Your task to perform on an android device: Go to accessibility settings Image 0: 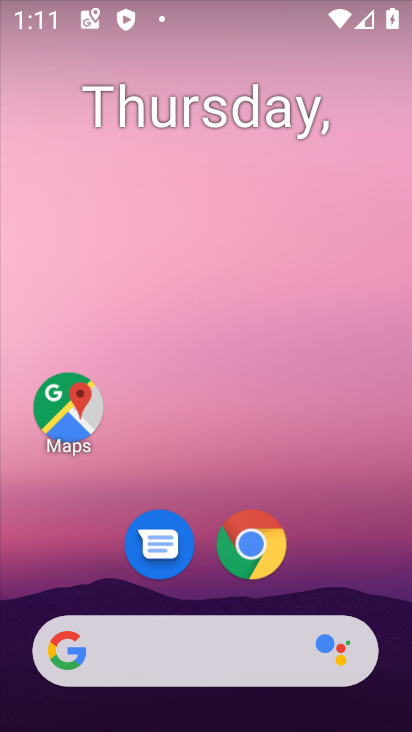
Step 0: drag from (200, 721) to (215, 164)
Your task to perform on an android device: Go to accessibility settings Image 1: 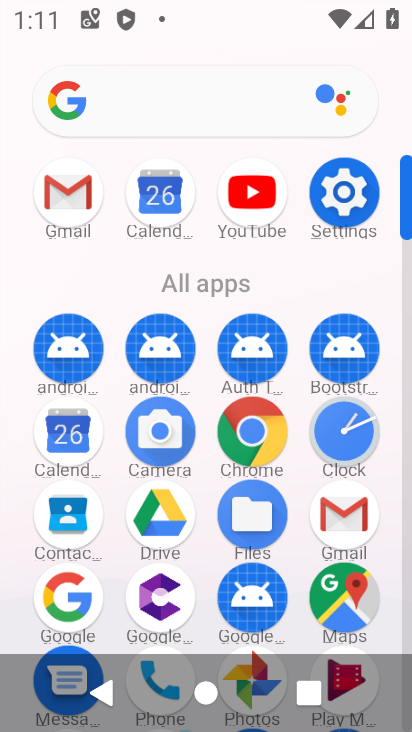
Step 1: click (354, 166)
Your task to perform on an android device: Go to accessibility settings Image 2: 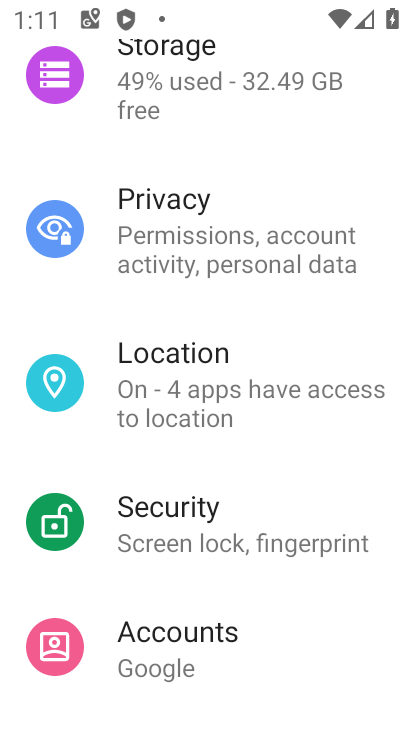
Step 2: drag from (166, 625) to (191, 120)
Your task to perform on an android device: Go to accessibility settings Image 3: 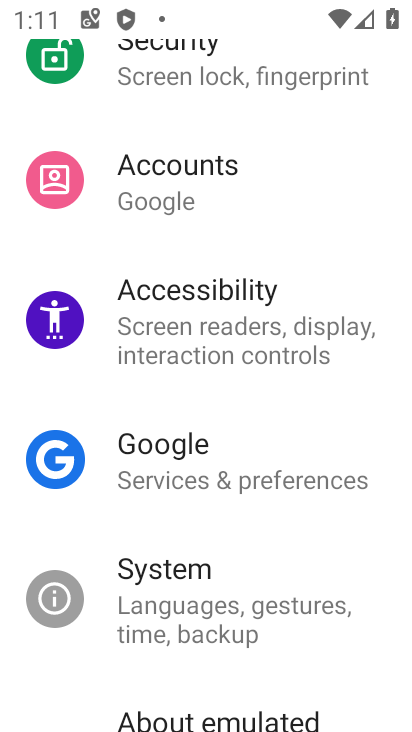
Step 3: click (193, 322)
Your task to perform on an android device: Go to accessibility settings Image 4: 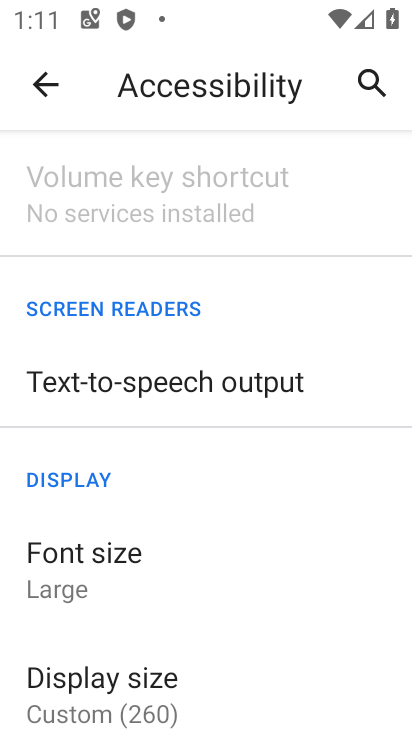
Step 4: task complete